Your task to perform on an android device: Clear all items from cart on amazon.com. Search for asus zenbook on amazon.com, select the first entry, add it to the cart, then select checkout. Image 0: 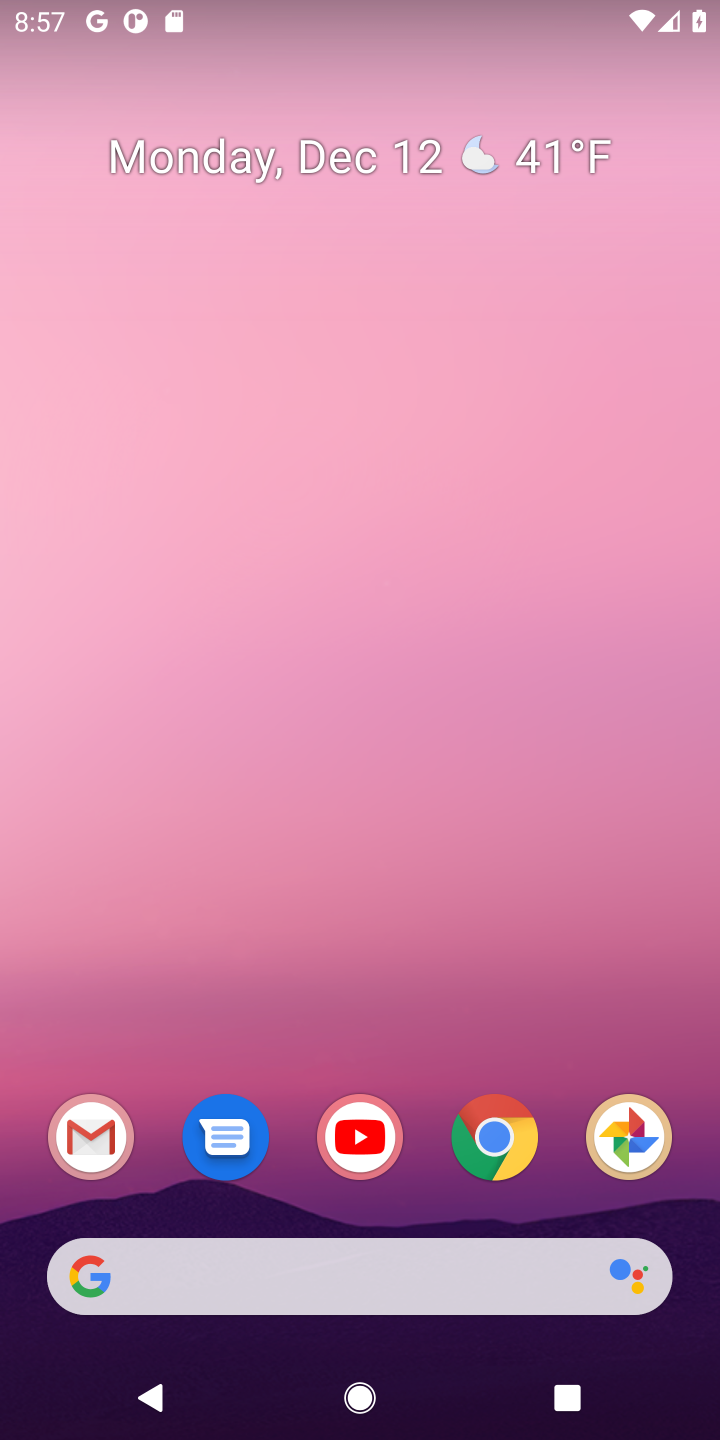
Step 0: click (491, 1135)
Your task to perform on an android device: Clear all items from cart on amazon.com. Search for asus zenbook on amazon.com, select the first entry, add it to the cart, then select checkout. Image 1: 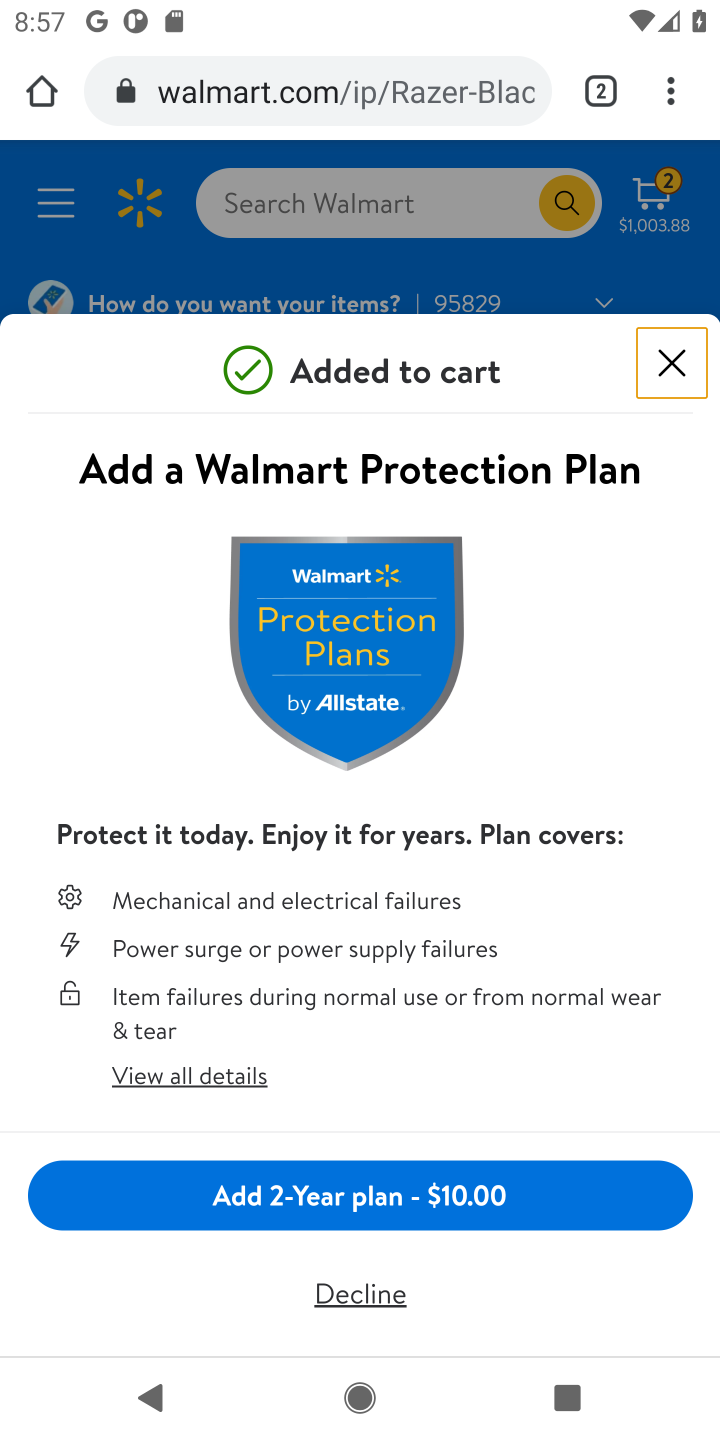
Step 1: click (667, 359)
Your task to perform on an android device: Clear all items from cart on amazon.com. Search for asus zenbook on amazon.com, select the first entry, add it to the cart, then select checkout. Image 2: 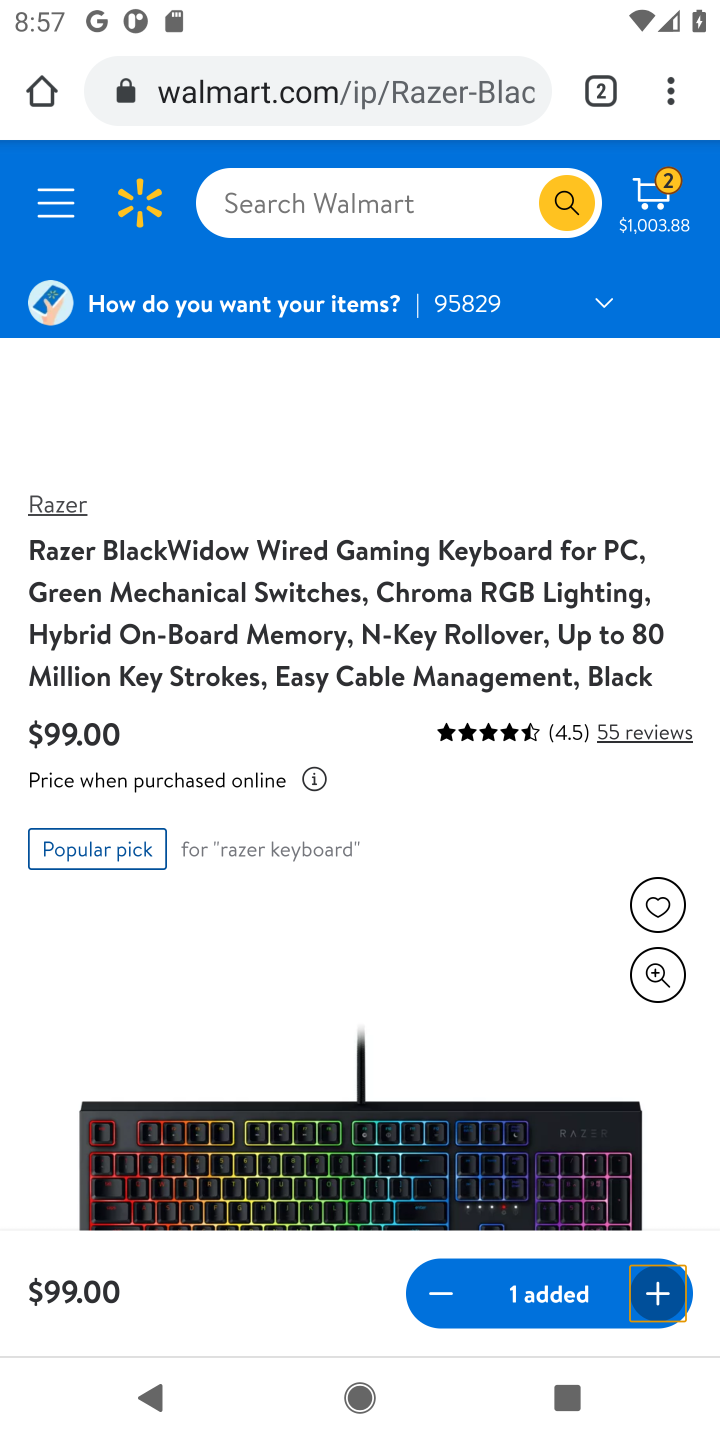
Step 2: click (327, 105)
Your task to perform on an android device: Clear all items from cart on amazon.com. Search for asus zenbook on amazon.com, select the first entry, add it to the cart, then select checkout. Image 3: 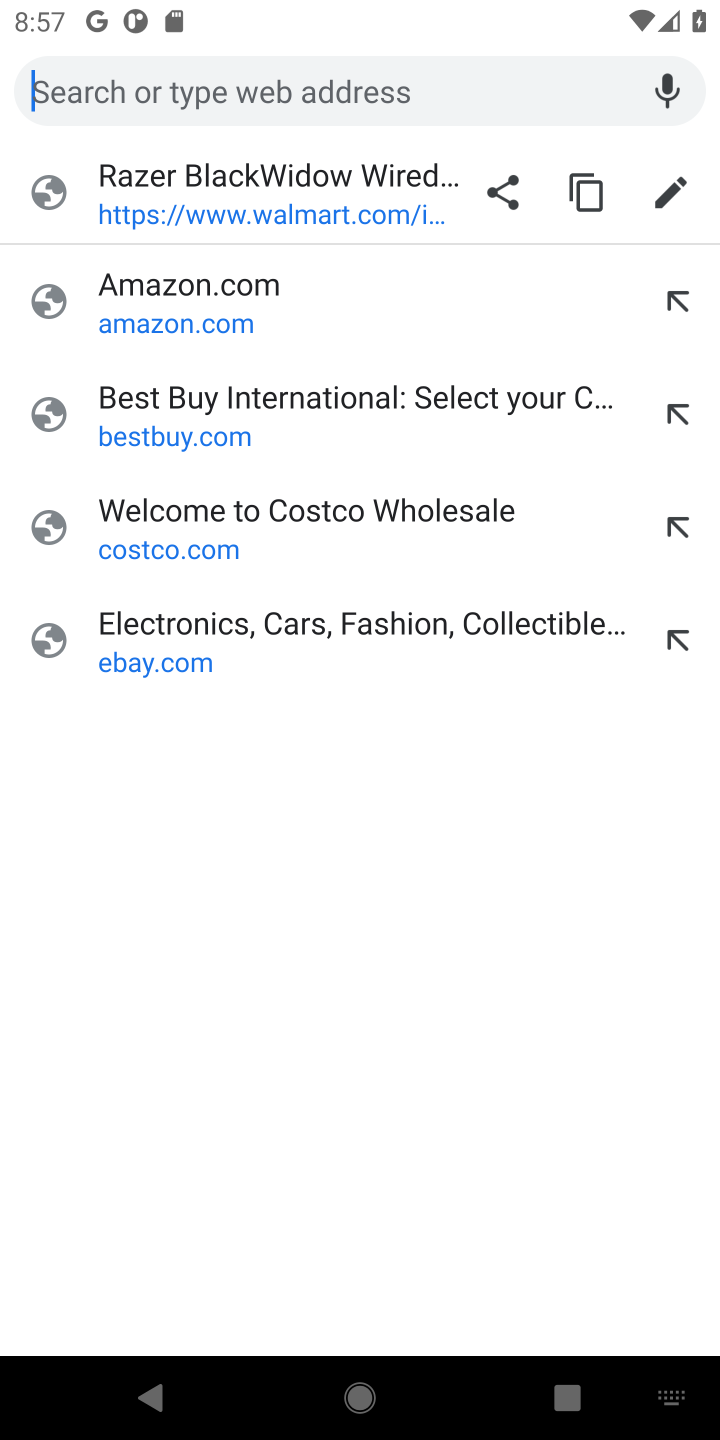
Step 3: click (295, 282)
Your task to perform on an android device: Clear all items from cart on amazon.com. Search for asus zenbook on amazon.com, select the first entry, add it to the cart, then select checkout. Image 4: 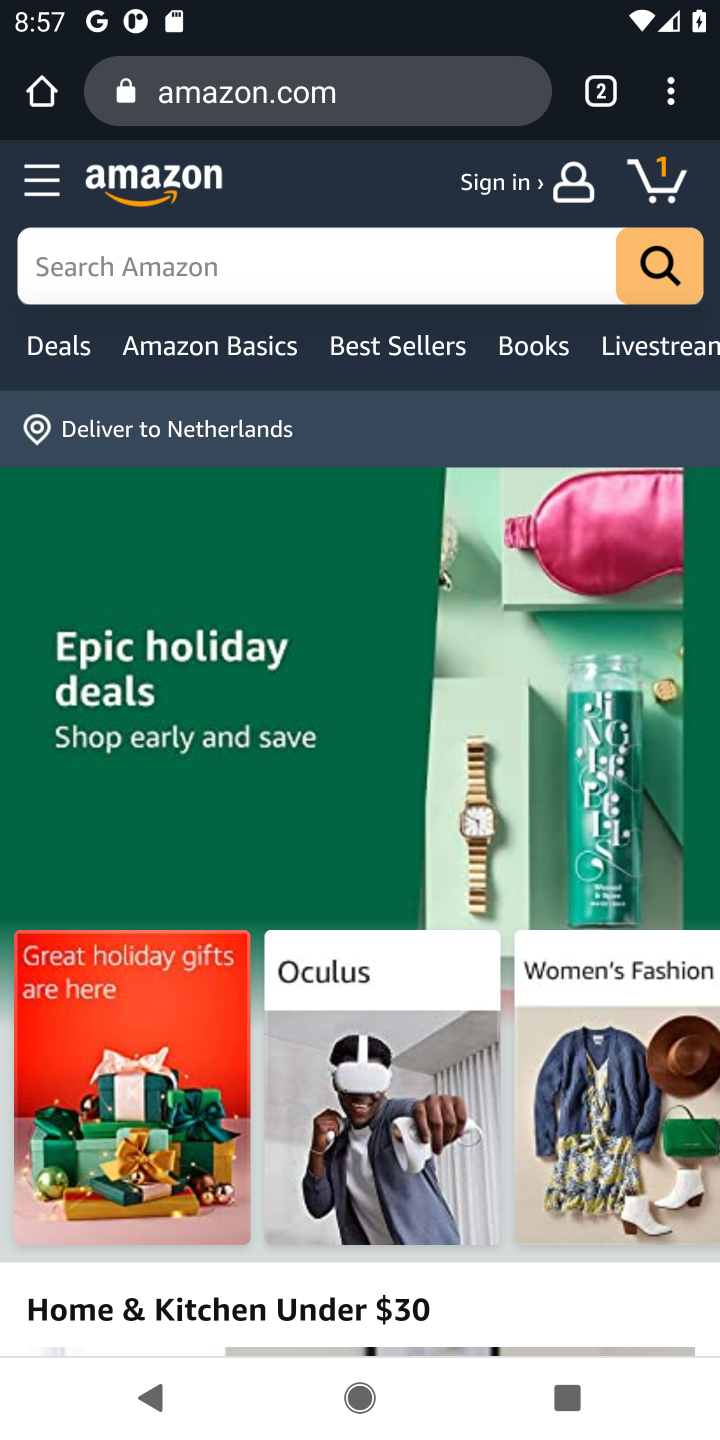
Step 4: click (658, 177)
Your task to perform on an android device: Clear all items from cart on amazon.com. Search for asus zenbook on amazon.com, select the first entry, add it to the cart, then select checkout. Image 5: 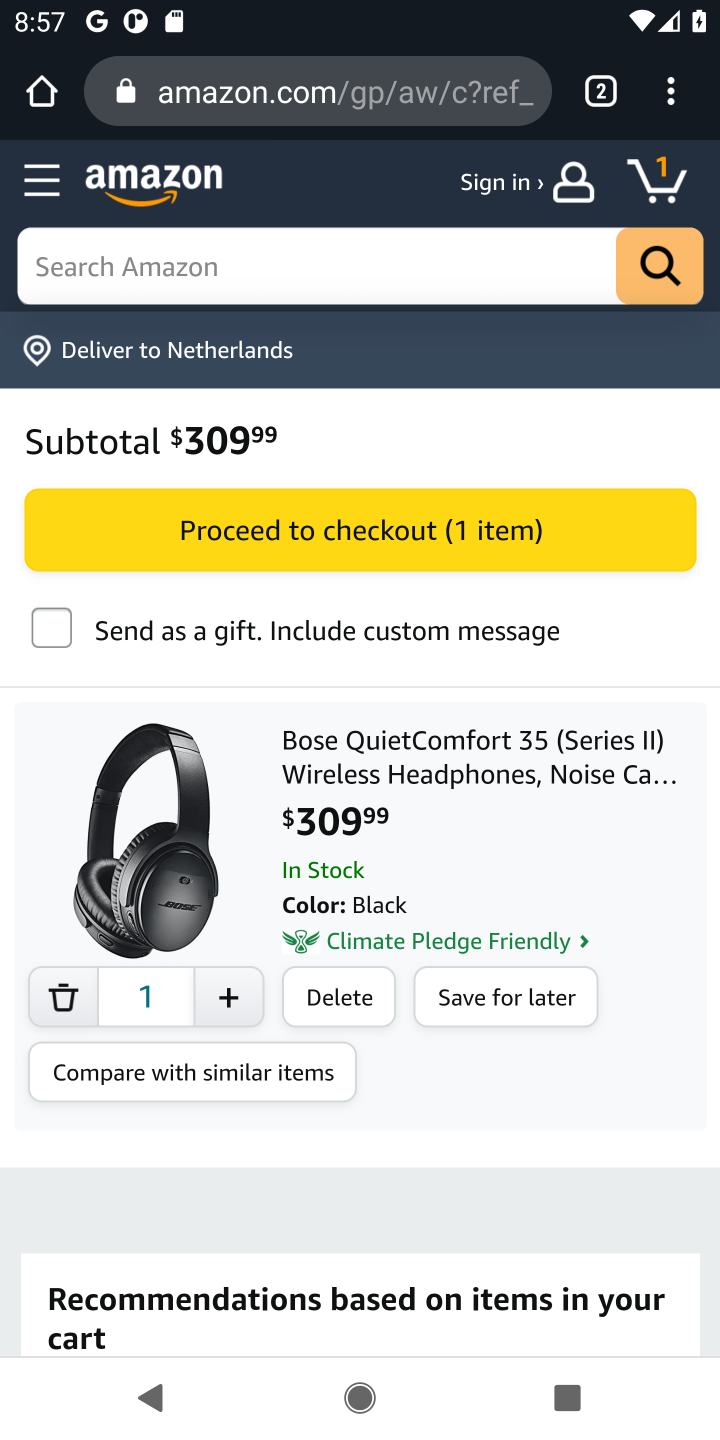
Step 5: click (343, 997)
Your task to perform on an android device: Clear all items from cart on amazon.com. Search for asus zenbook on amazon.com, select the first entry, add it to the cart, then select checkout. Image 6: 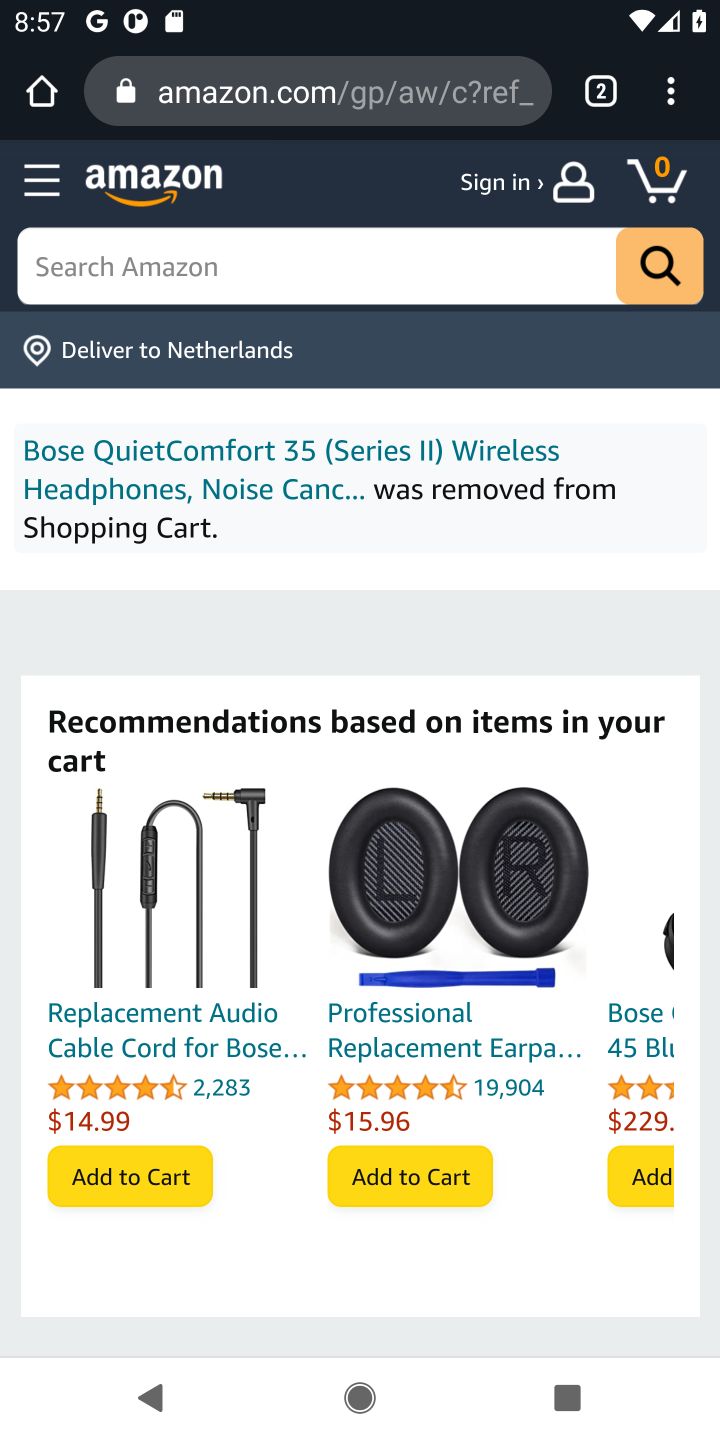
Step 6: click (237, 257)
Your task to perform on an android device: Clear all items from cart on amazon.com. Search for asus zenbook on amazon.com, select the first entry, add it to the cart, then select checkout. Image 7: 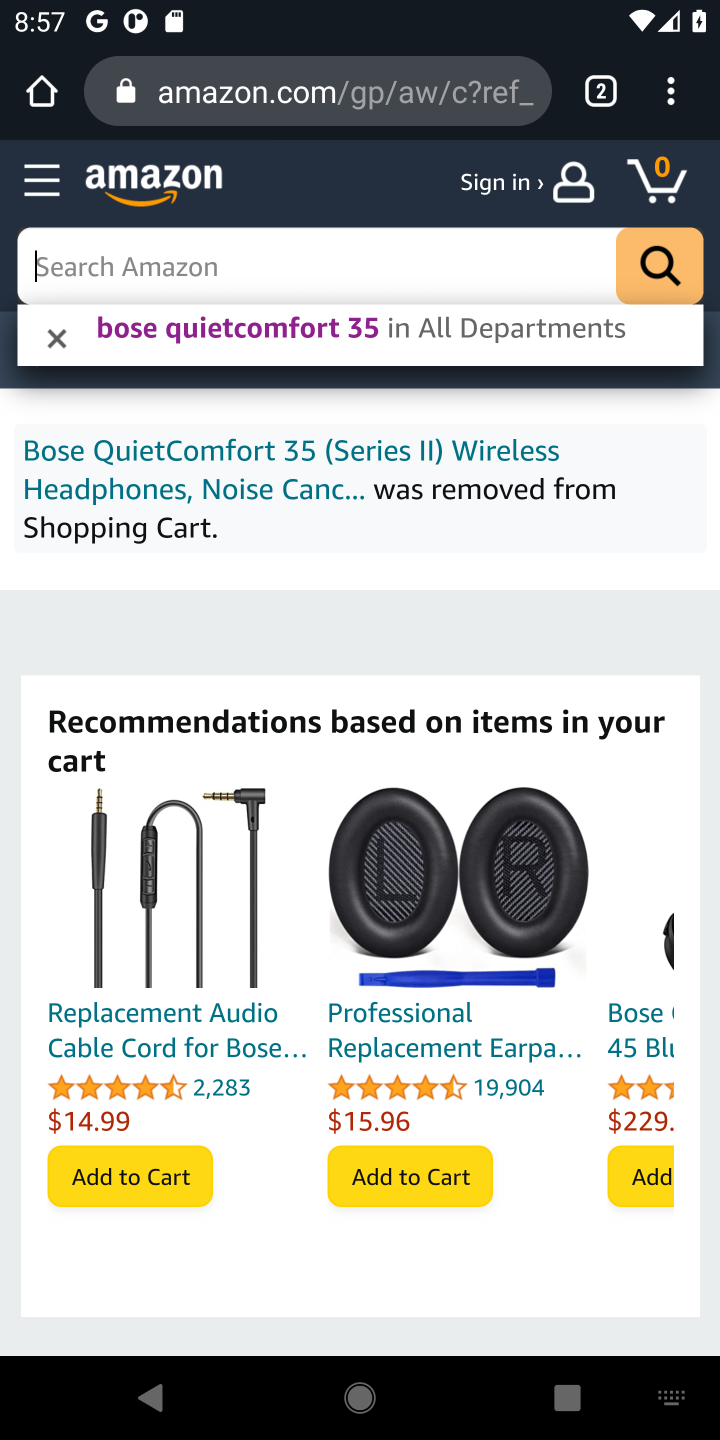
Step 7: type "asus zenbook"
Your task to perform on an android device: Clear all items from cart on amazon.com. Search for asus zenbook on amazon.com, select the first entry, add it to the cart, then select checkout. Image 8: 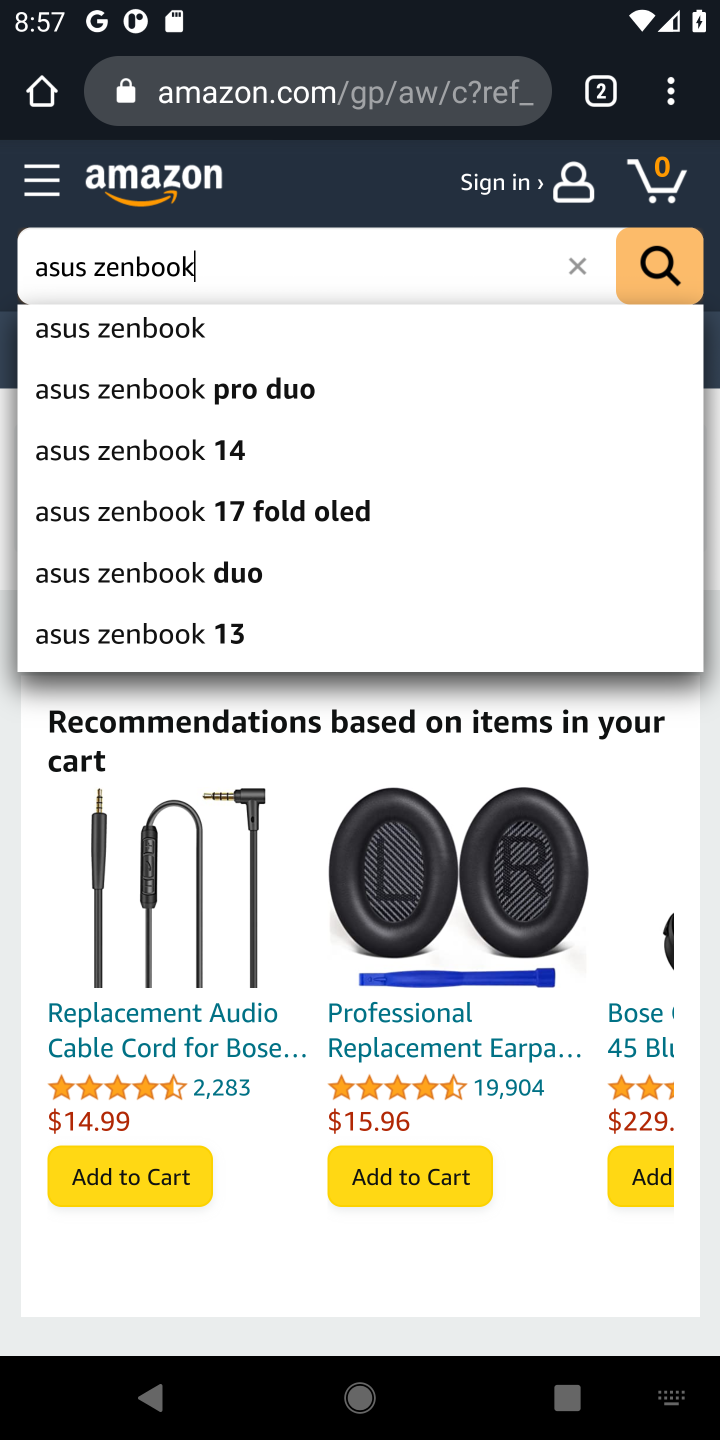
Step 8: click (127, 327)
Your task to perform on an android device: Clear all items from cart on amazon.com. Search for asus zenbook on amazon.com, select the first entry, add it to the cart, then select checkout. Image 9: 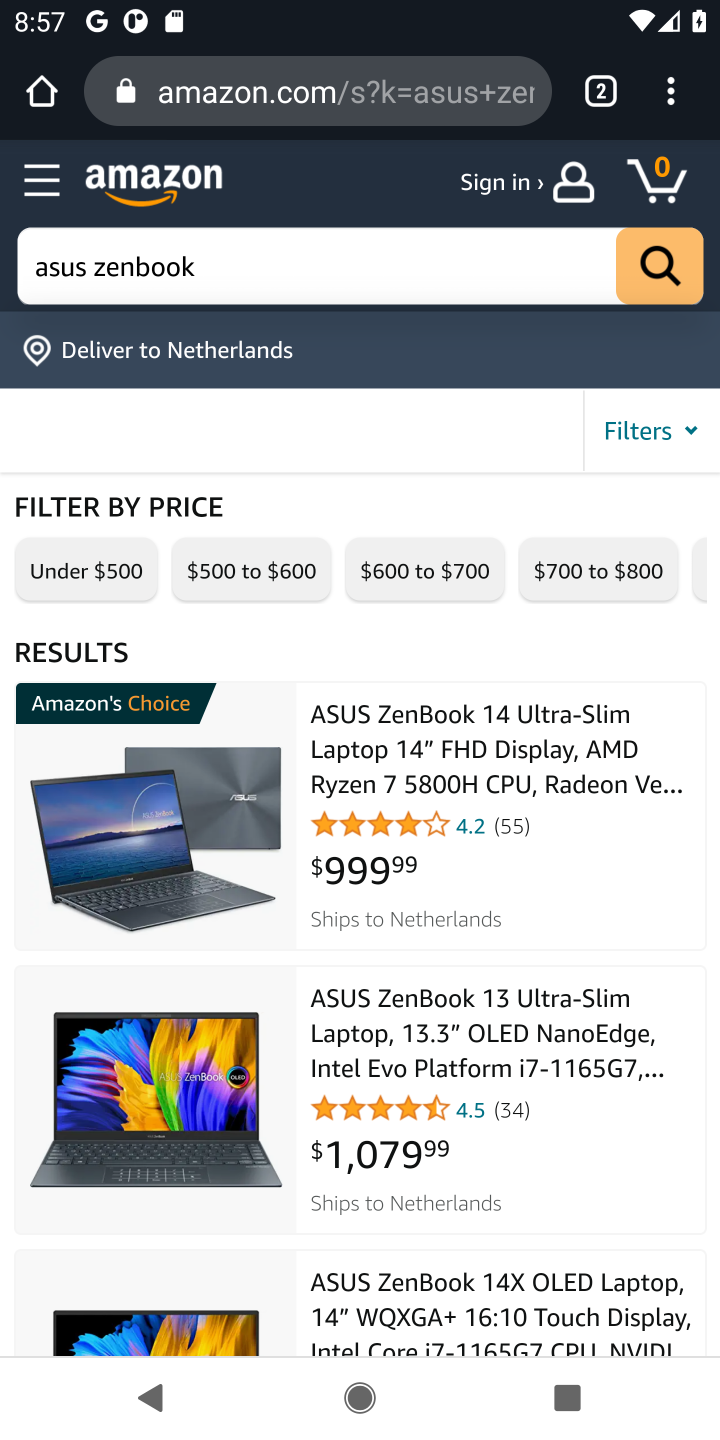
Step 9: click (608, 789)
Your task to perform on an android device: Clear all items from cart on amazon.com. Search for asus zenbook on amazon.com, select the first entry, add it to the cart, then select checkout. Image 10: 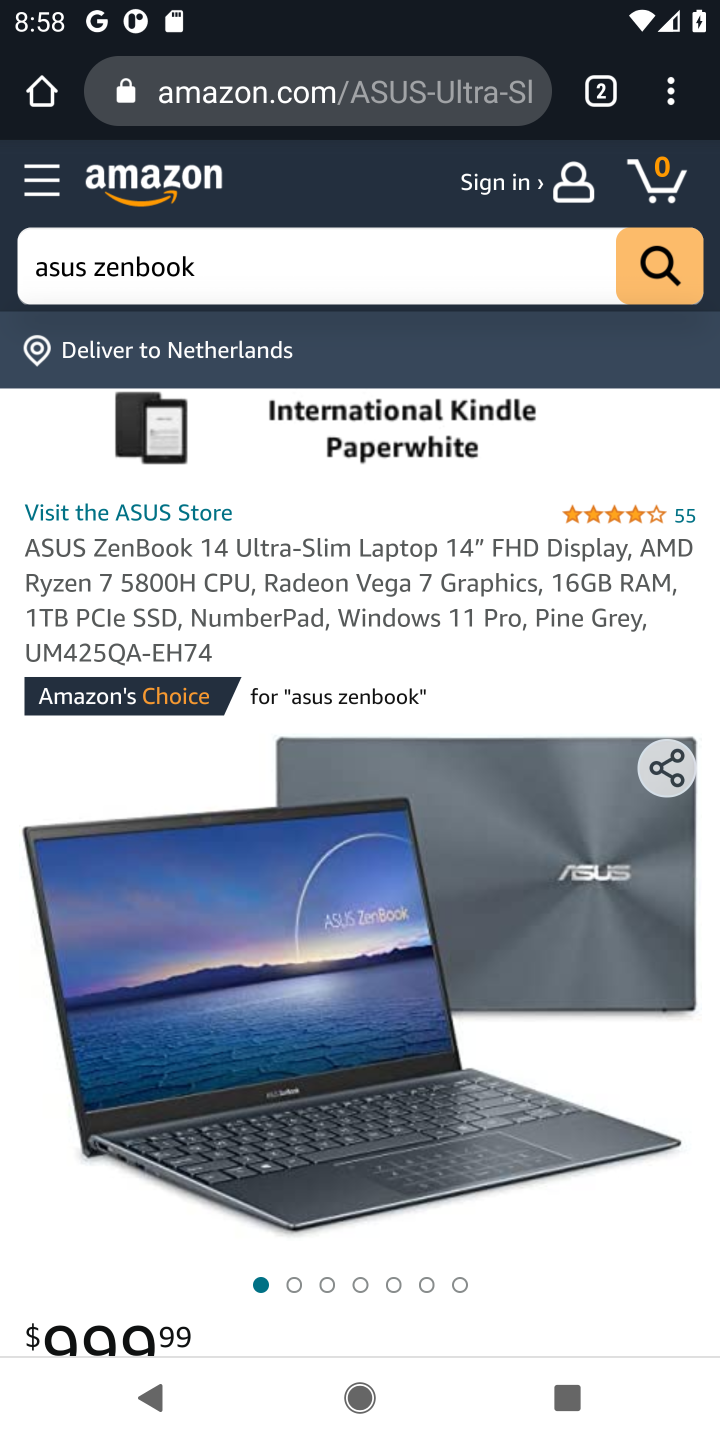
Step 10: drag from (533, 1236) to (484, 329)
Your task to perform on an android device: Clear all items from cart on amazon.com. Search for asus zenbook on amazon.com, select the first entry, add it to the cart, then select checkout. Image 11: 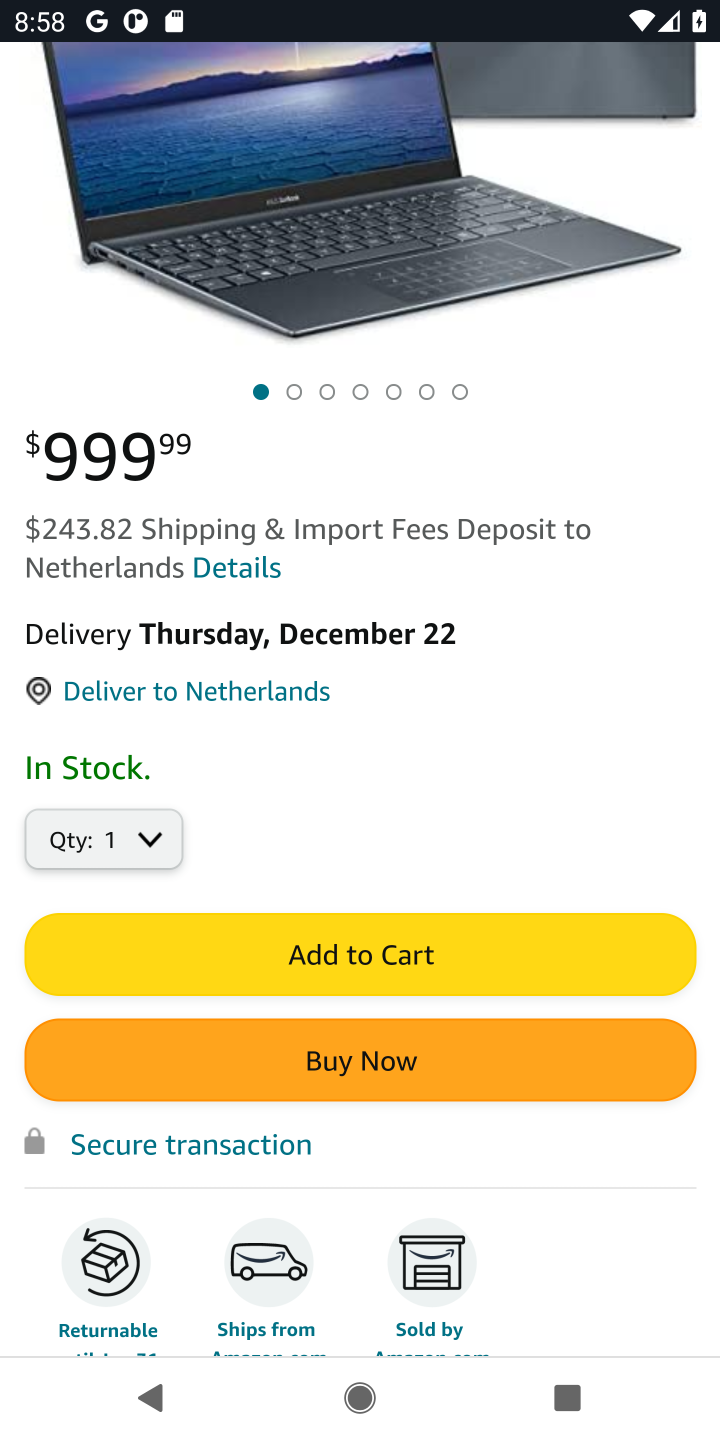
Step 11: click (372, 967)
Your task to perform on an android device: Clear all items from cart on amazon.com. Search for asus zenbook on amazon.com, select the first entry, add it to the cart, then select checkout. Image 12: 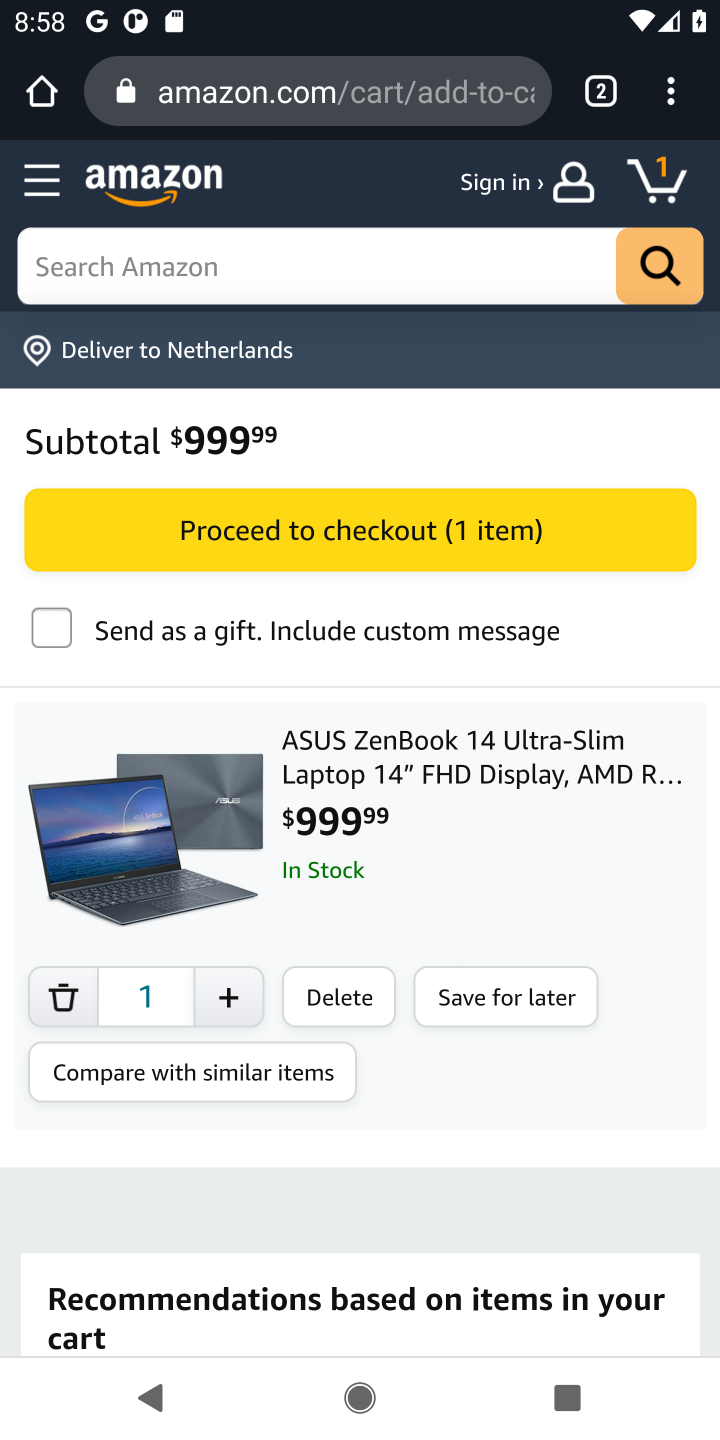
Step 12: click (347, 533)
Your task to perform on an android device: Clear all items from cart on amazon.com. Search for asus zenbook on amazon.com, select the first entry, add it to the cart, then select checkout. Image 13: 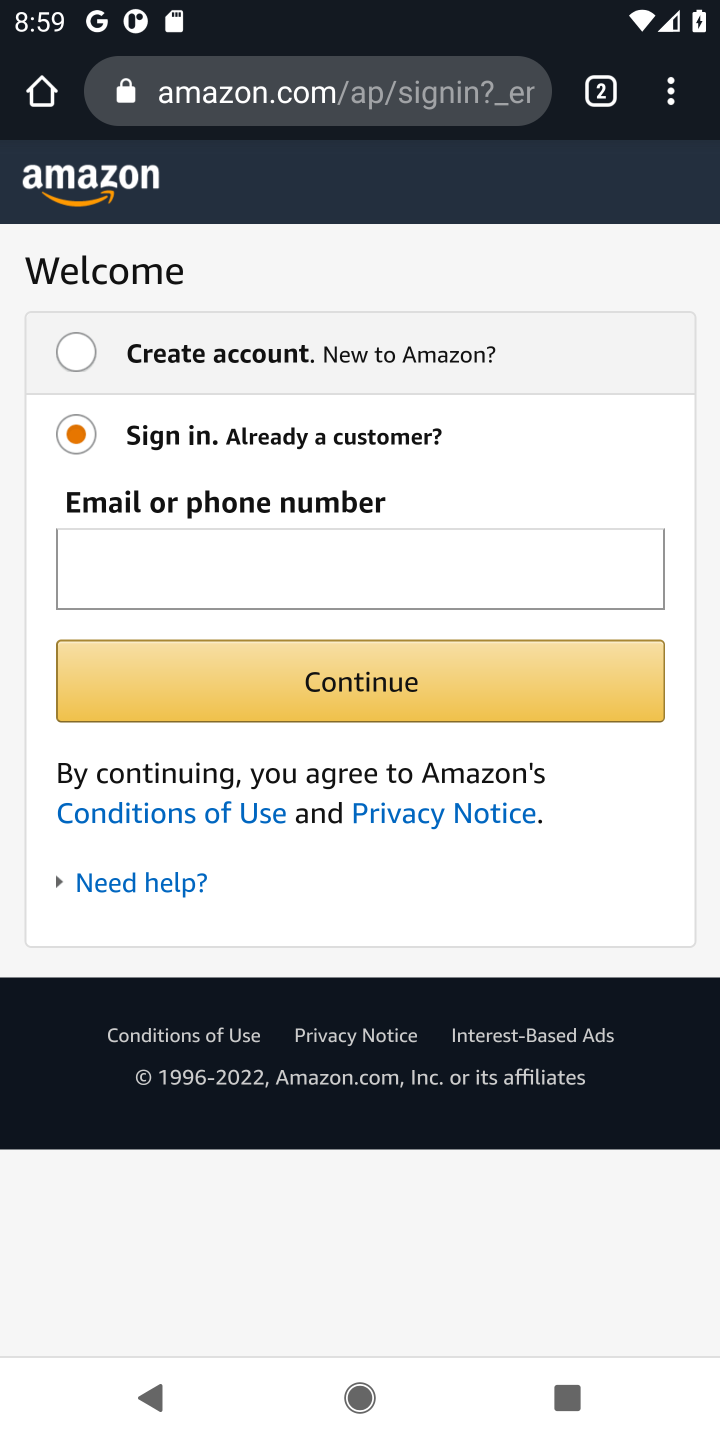
Step 13: task complete